Your task to perform on an android device: open chrome and create a bookmark for the current page Image 0: 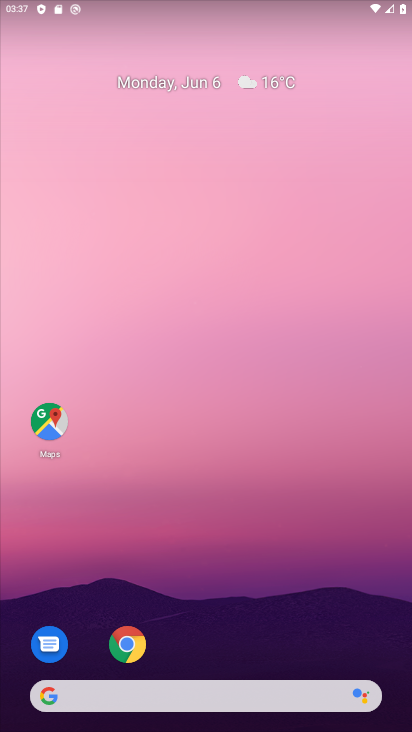
Step 0: click (122, 635)
Your task to perform on an android device: open chrome and create a bookmark for the current page Image 1: 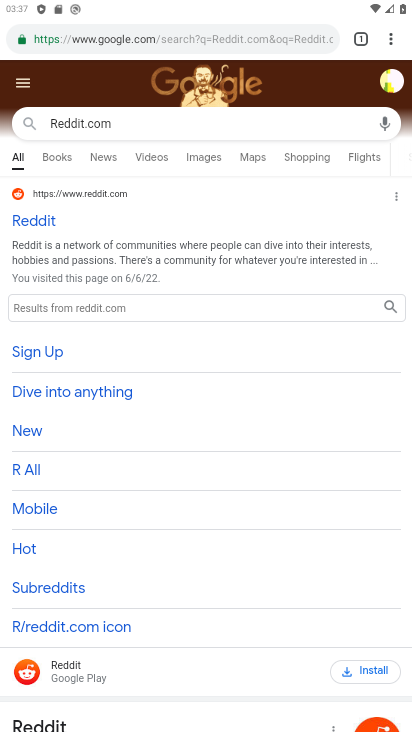
Step 1: click (384, 36)
Your task to perform on an android device: open chrome and create a bookmark for the current page Image 2: 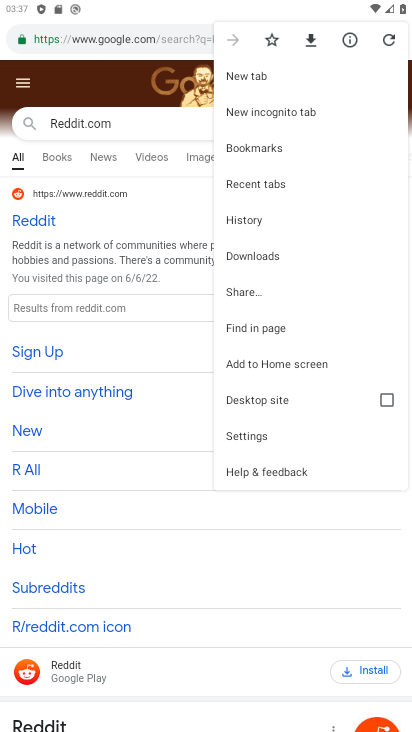
Step 2: drag from (320, 452) to (321, 208)
Your task to perform on an android device: open chrome and create a bookmark for the current page Image 3: 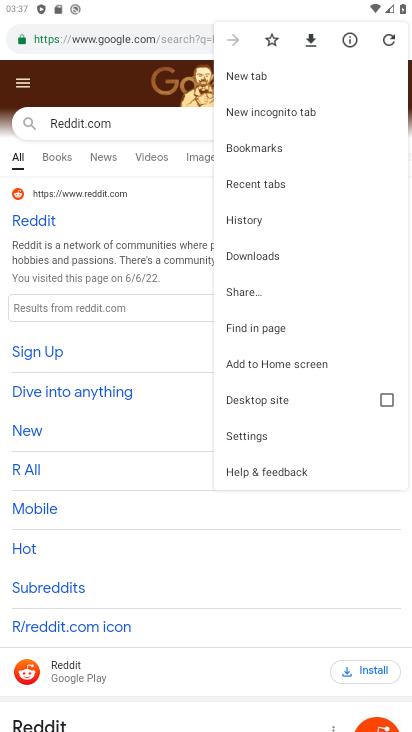
Step 3: click (249, 426)
Your task to perform on an android device: open chrome and create a bookmark for the current page Image 4: 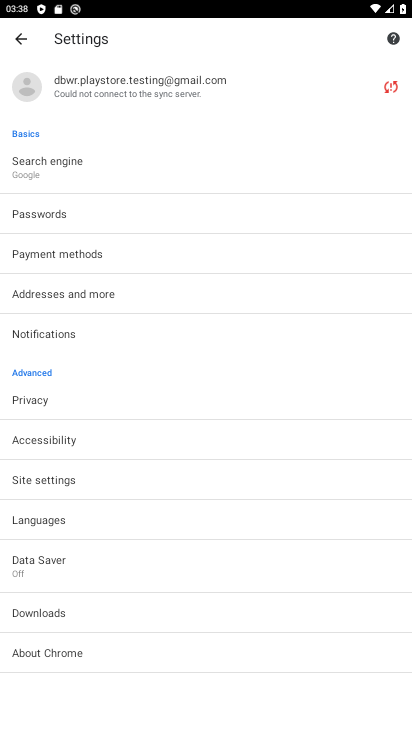
Step 4: drag from (135, 607) to (173, 288)
Your task to perform on an android device: open chrome and create a bookmark for the current page Image 5: 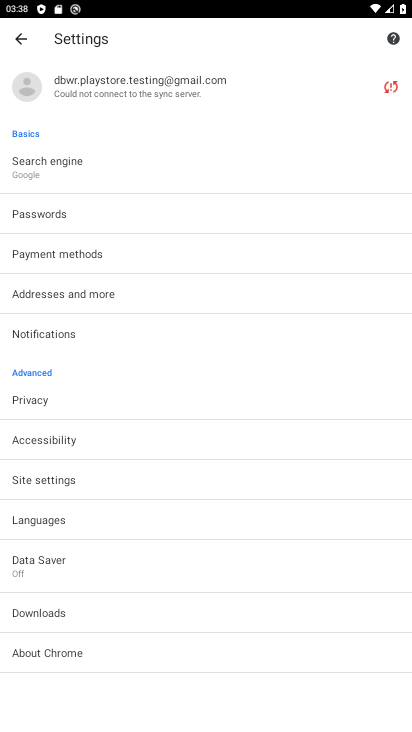
Step 5: click (12, 43)
Your task to perform on an android device: open chrome and create a bookmark for the current page Image 6: 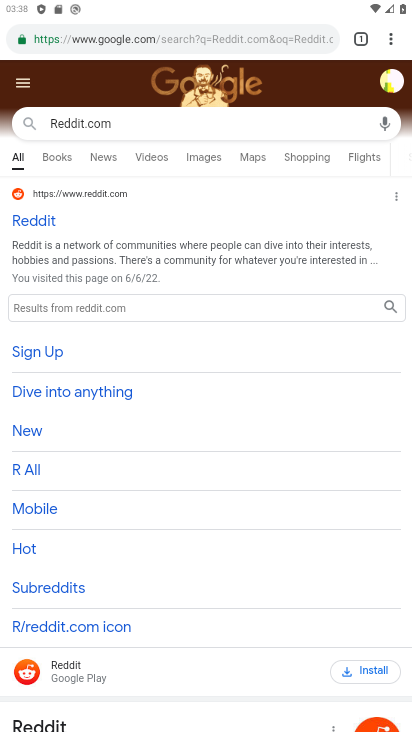
Step 6: click (390, 36)
Your task to perform on an android device: open chrome and create a bookmark for the current page Image 7: 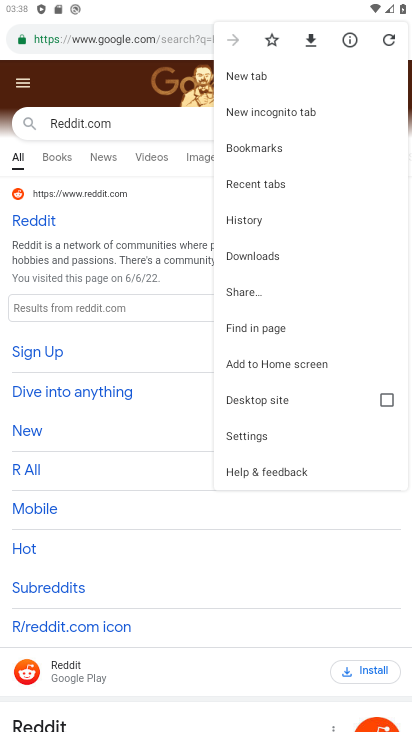
Step 7: click (261, 145)
Your task to perform on an android device: open chrome and create a bookmark for the current page Image 8: 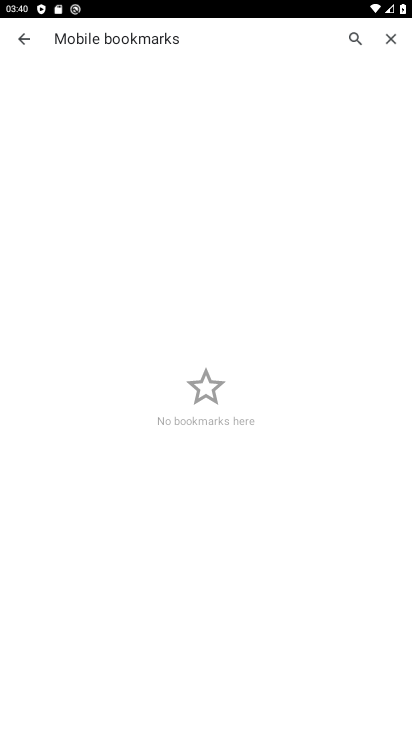
Step 8: press back button
Your task to perform on an android device: open chrome and create a bookmark for the current page Image 9: 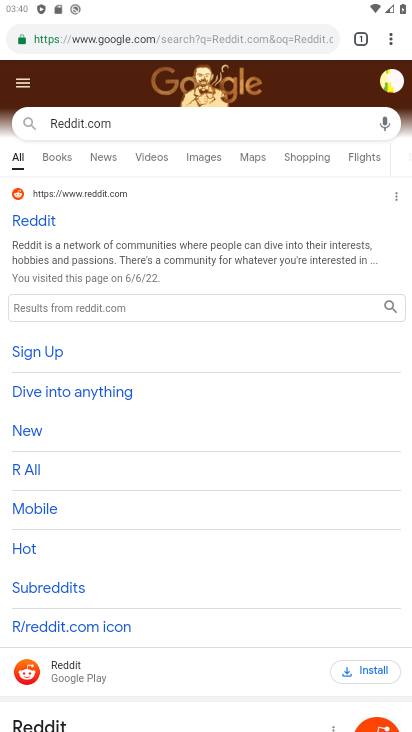
Step 9: click (384, 32)
Your task to perform on an android device: open chrome and create a bookmark for the current page Image 10: 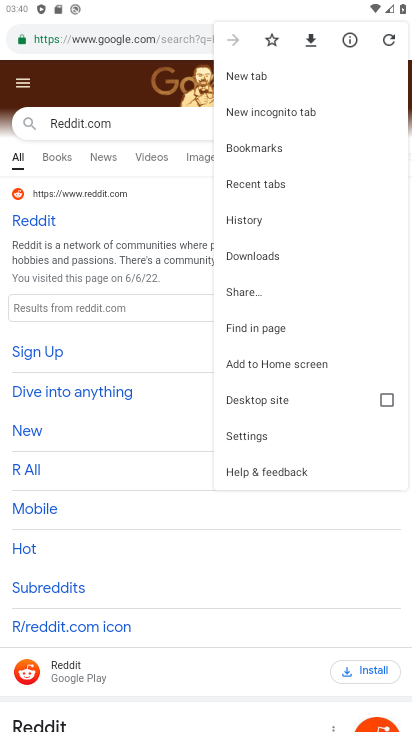
Step 10: click (272, 40)
Your task to perform on an android device: open chrome and create a bookmark for the current page Image 11: 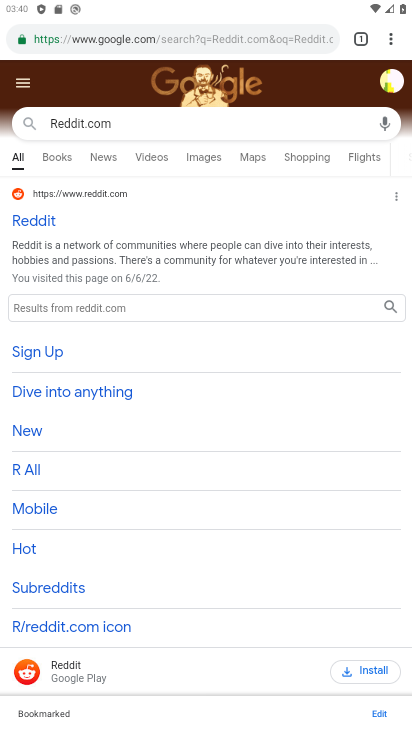
Step 11: task complete